Your task to perform on an android device: Show me popular games on the Play Store Image 0: 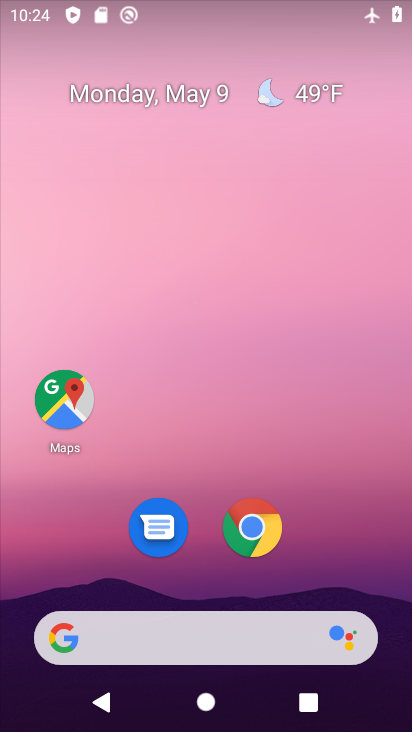
Step 0: drag from (335, 555) to (227, 68)
Your task to perform on an android device: Show me popular games on the Play Store Image 1: 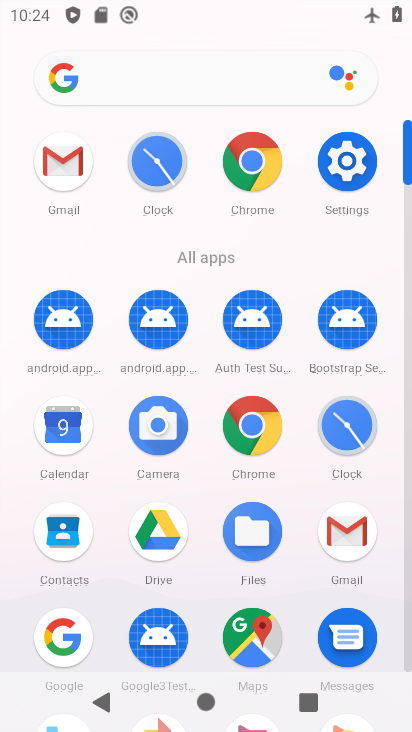
Step 1: drag from (204, 564) to (210, 237)
Your task to perform on an android device: Show me popular games on the Play Store Image 2: 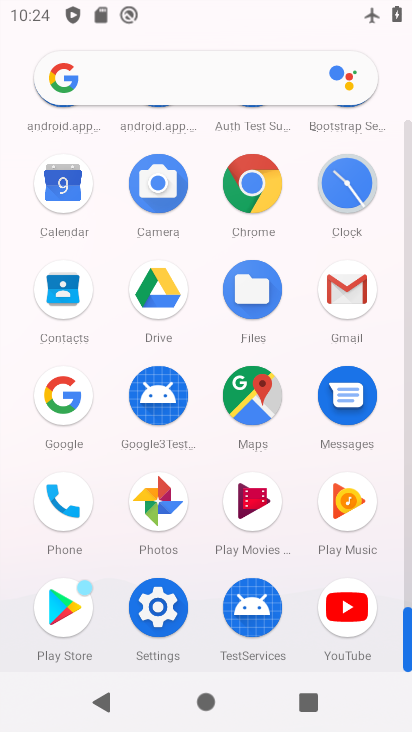
Step 2: click (62, 605)
Your task to perform on an android device: Show me popular games on the Play Store Image 3: 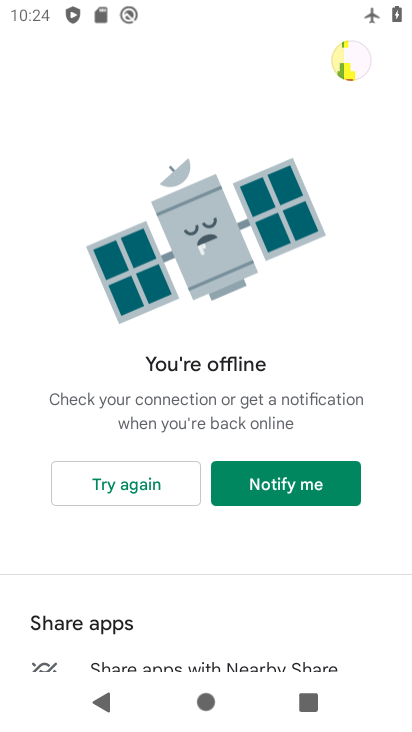
Step 3: click (123, 481)
Your task to perform on an android device: Show me popular games on the Play Store Image 4: 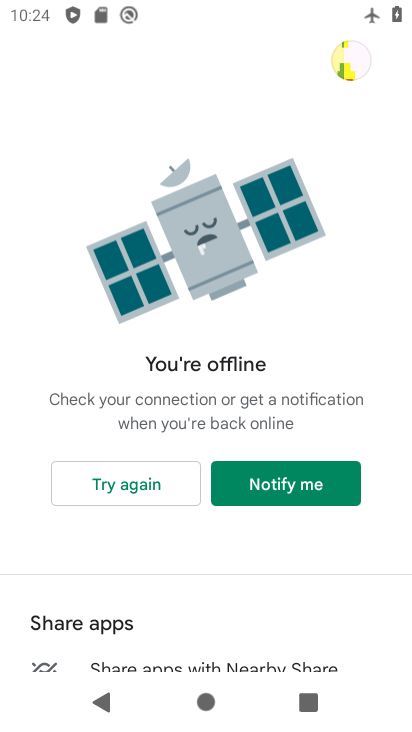
Step 4: task complete